Your task to perform on an android device: make emails show in primary in the gmail app Image 0: 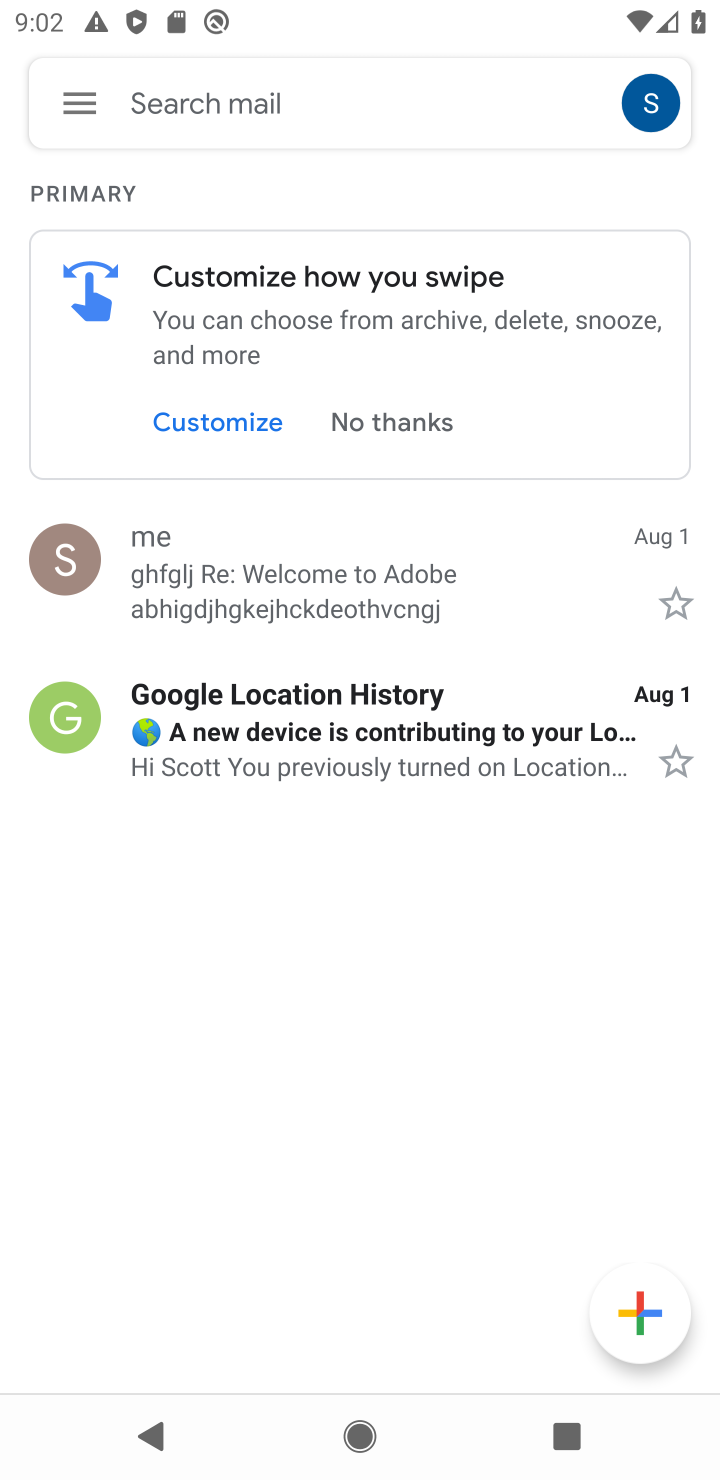
Step 0: press home button
Your task to perform on an android device: make emails show in primary in the gmail app Image 1: 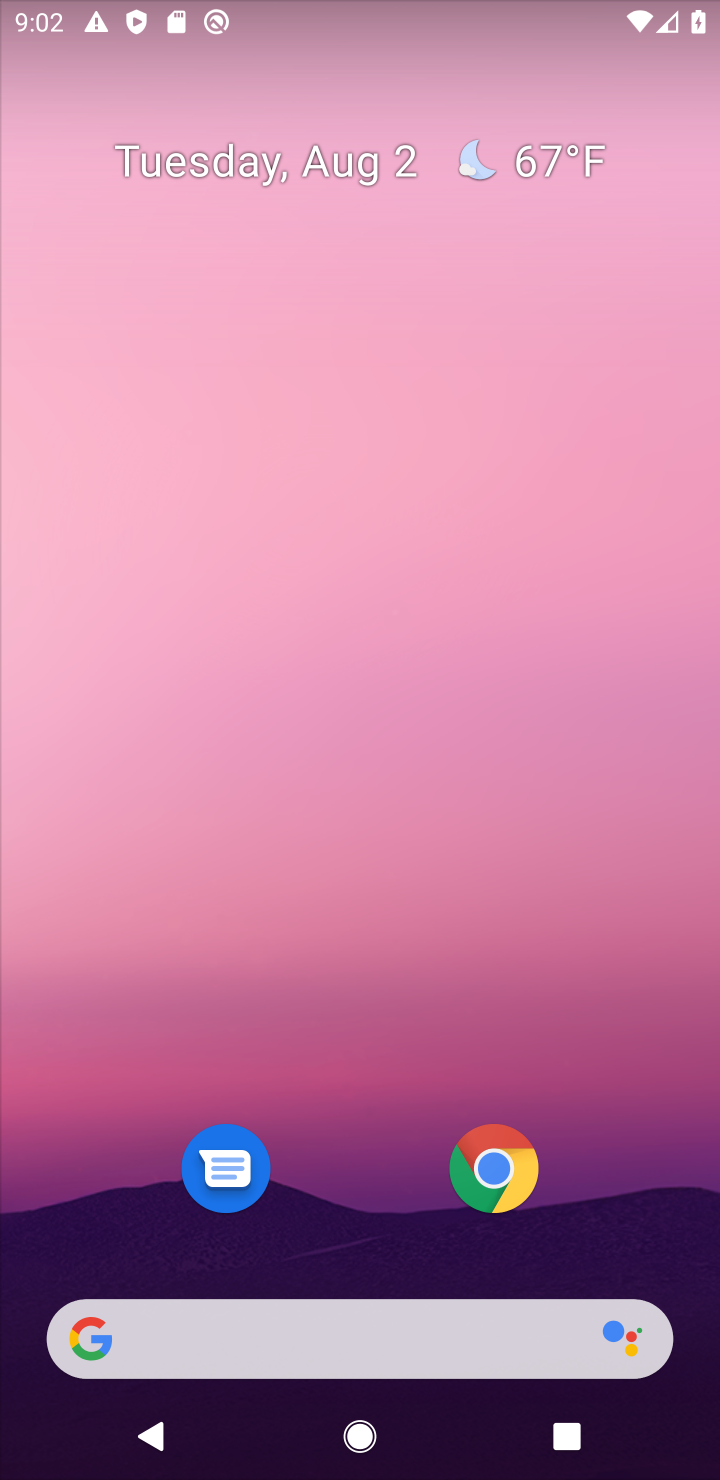
Step 1: drag from (627, 1217) to (445, 516)
Your task to perform on an android device: make emails show in primary in the gmail app Image 2: 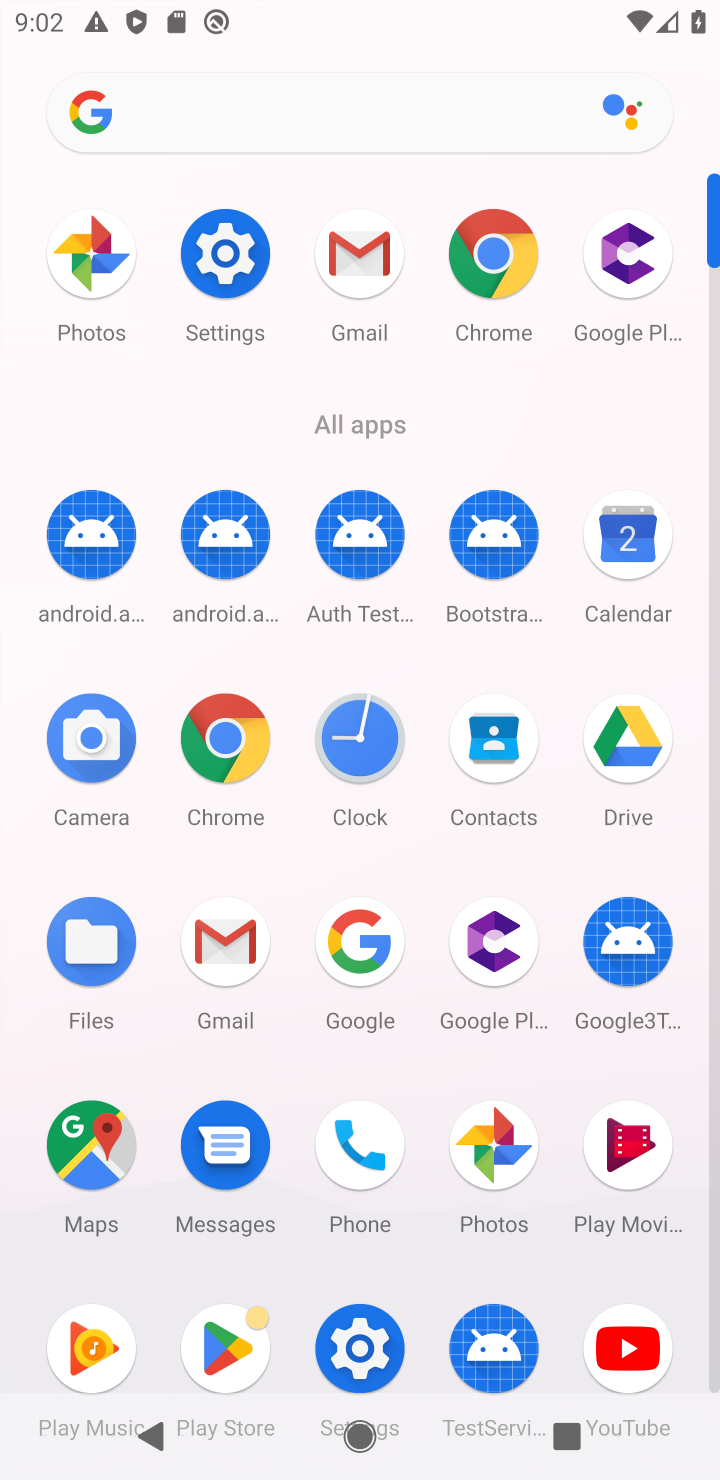
Step 2: click (350, 273)
Your task to perform on an android device: make emails show in primary in the gmail app Image 3: 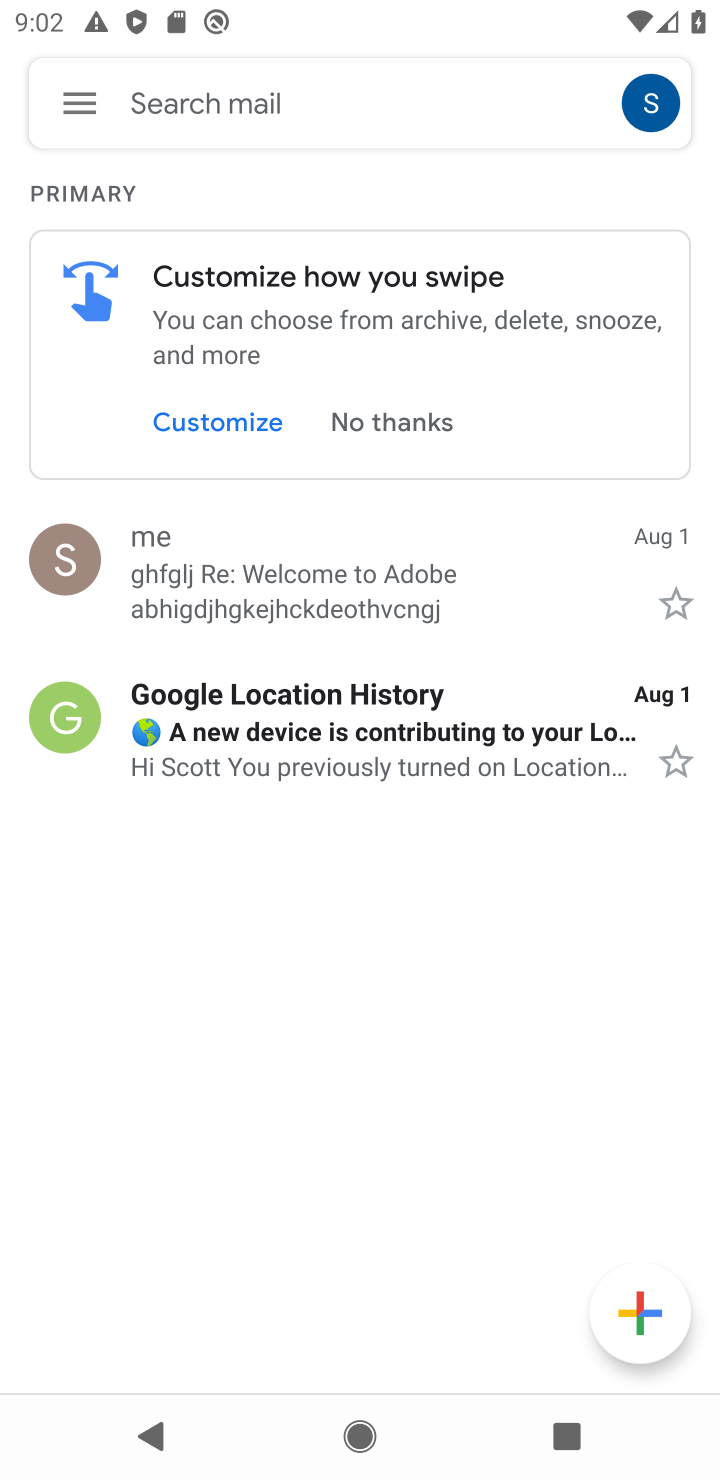
Step 3: click (97, 116)
Your task to perform on an android device: make emails show in primary in the gmail app Image 4: 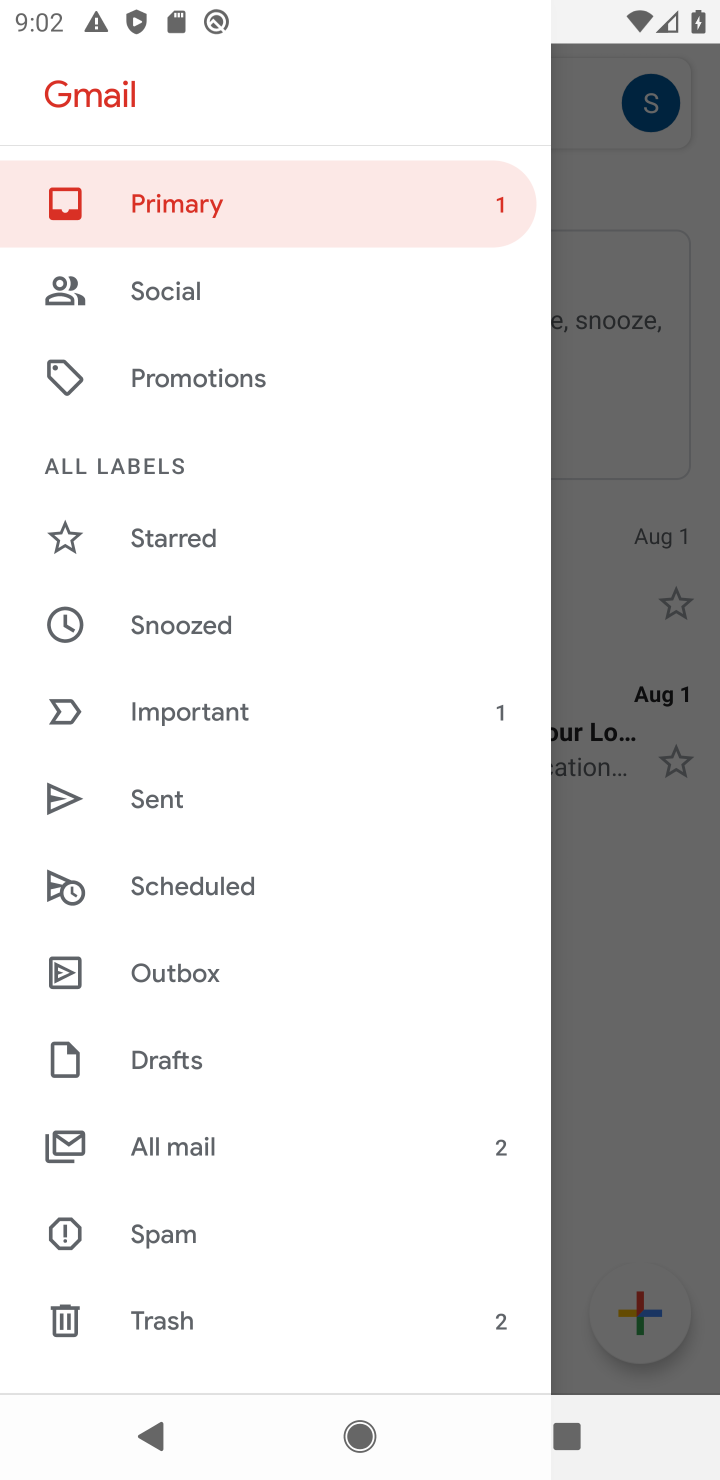
Step 4: drag from (189, 1322) to (171, 350)
Your task to perform on an android device: make emails show in primary in the gmail app Image 5: 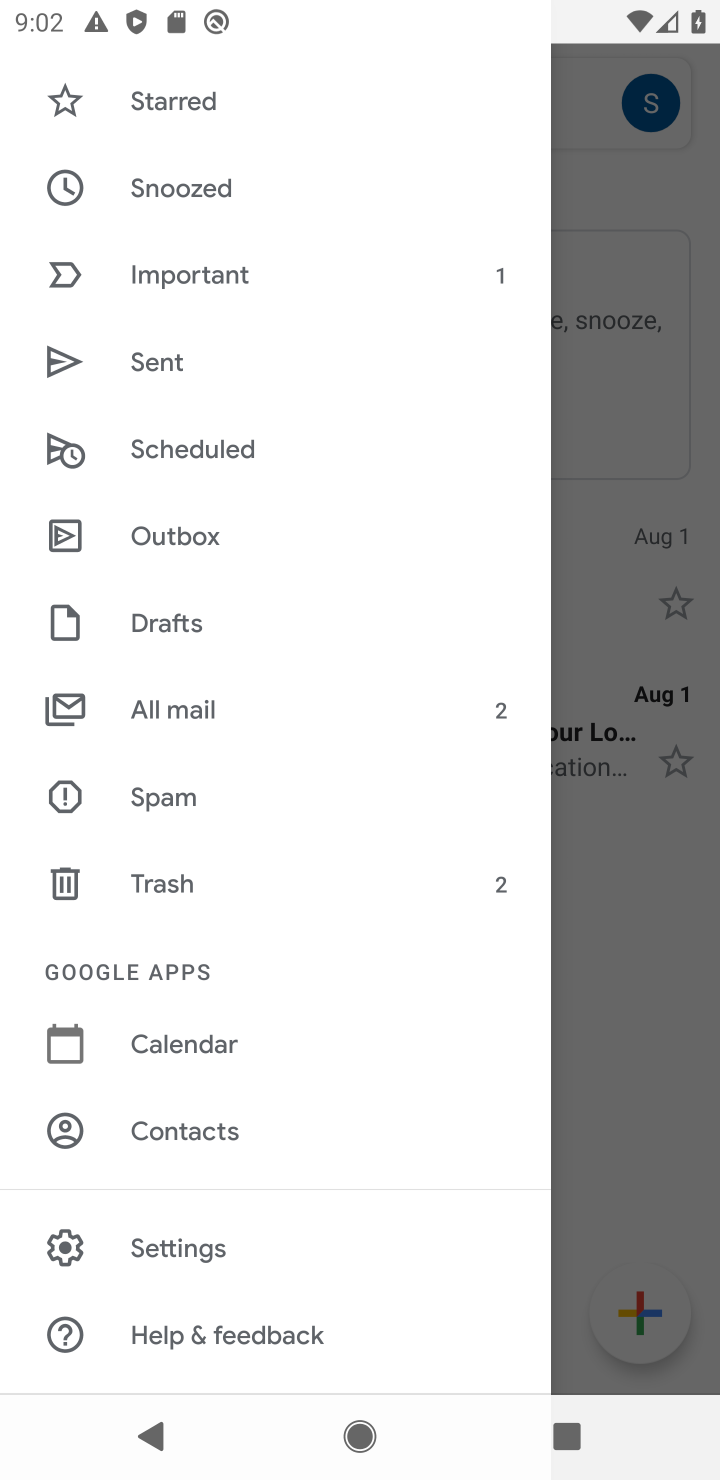
Step 5: click (244, 1209)
Your task to perform on an android device: make emails show in primary in the gmail app Image 6: 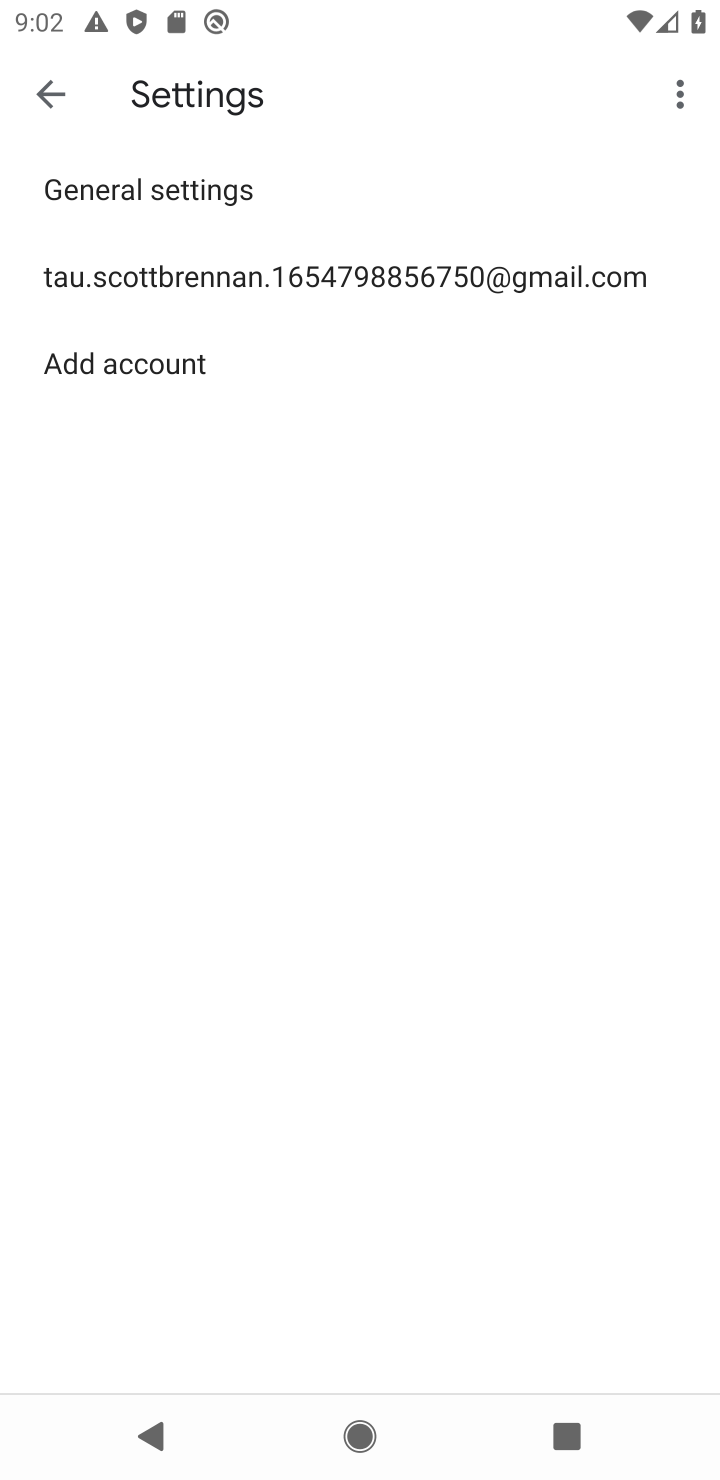
Step 6: click (436, 265)
Your task to perform on an android device: make emails show in primary in the gmail app Image 7: 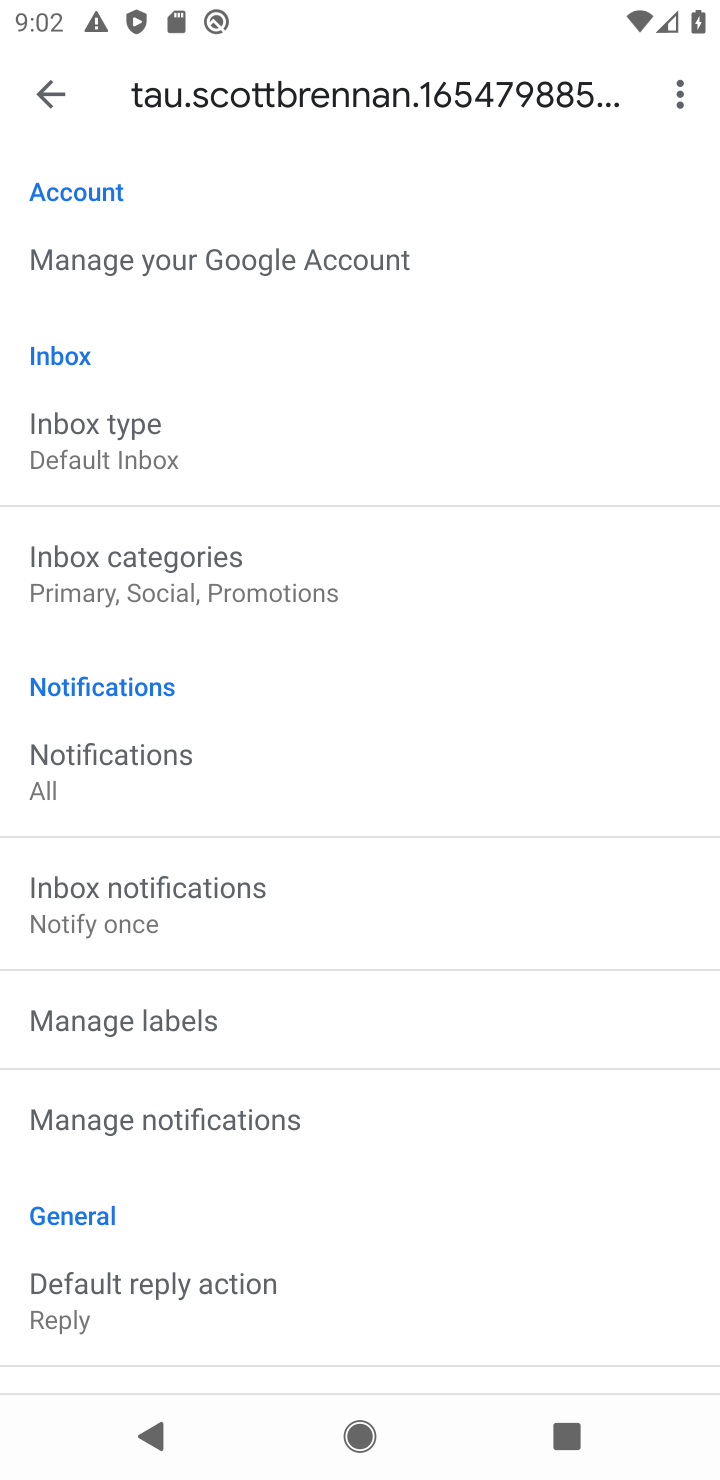
Step 7: click (406, 449)
Your task to perform on an android device: make emails show in primary in the gmail app Image 8: 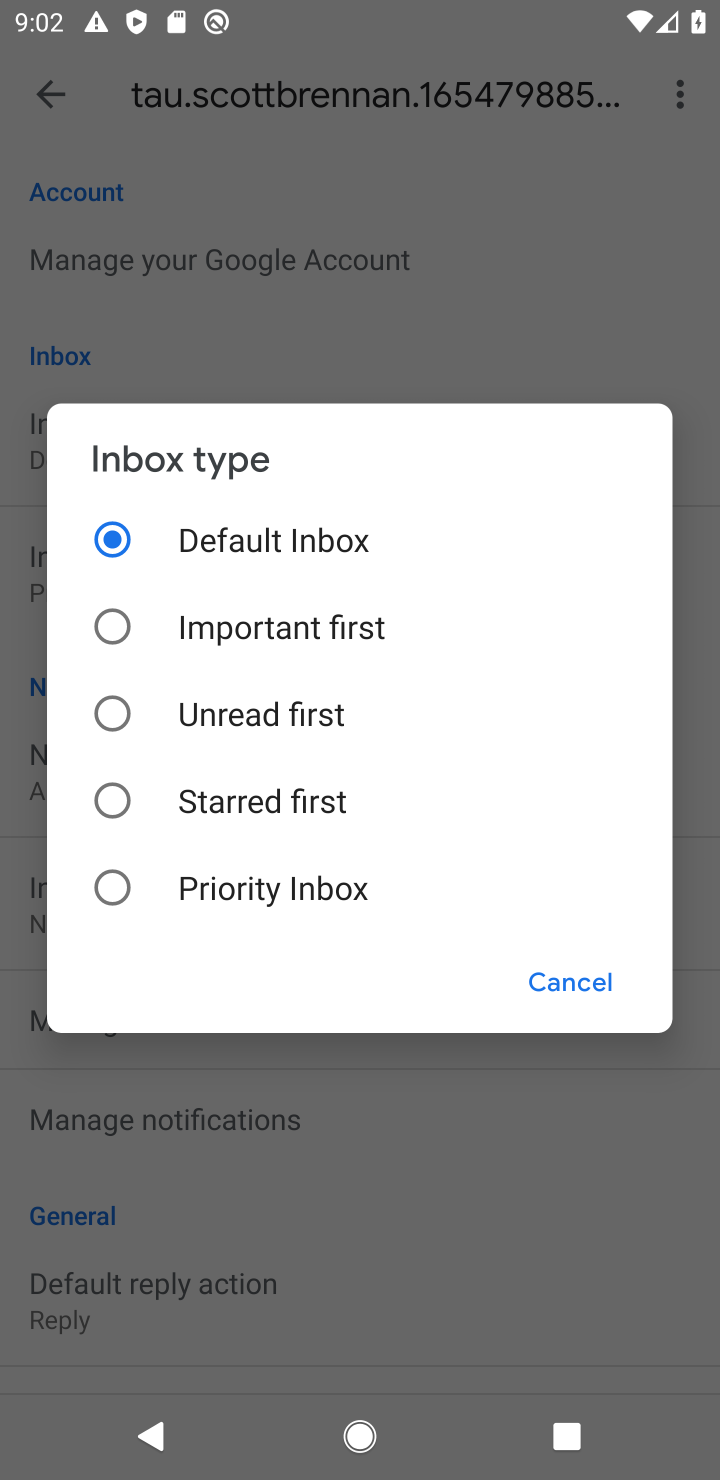
Step 8: task complete